Your task to perform on an android device: open app "Reddit" Image 0: 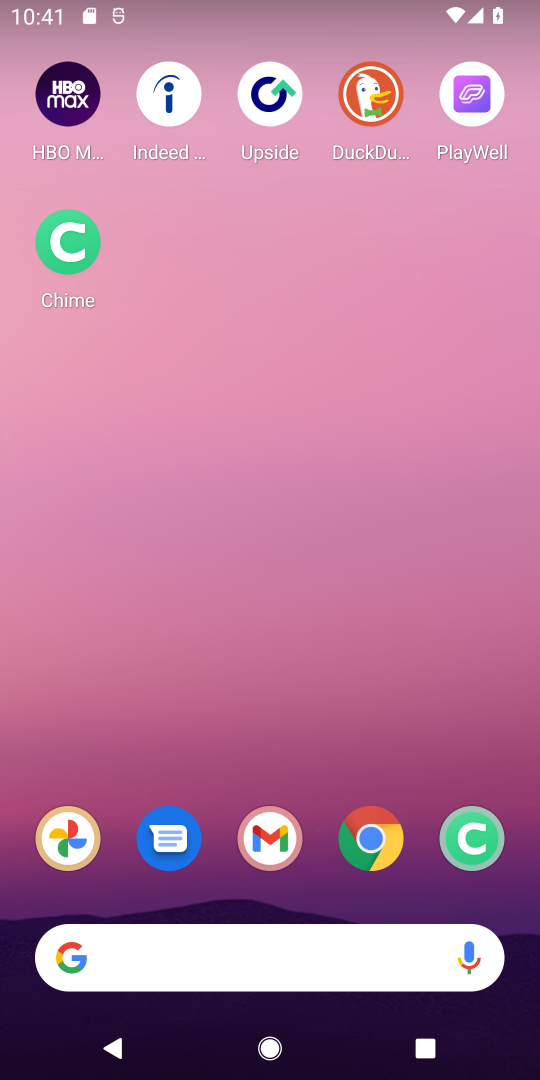
Step 0: press home button
Your task to perform on an android device: open app "Reddit" Image 1: 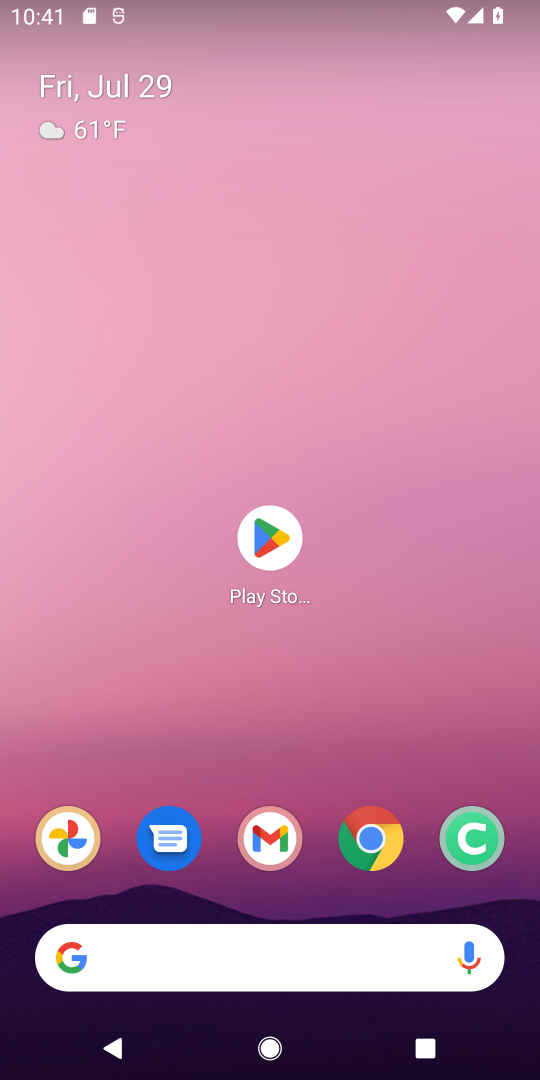
Step 1: click (267, 543)
Your task to perform on an android device: open app "Reddit" Image 2: 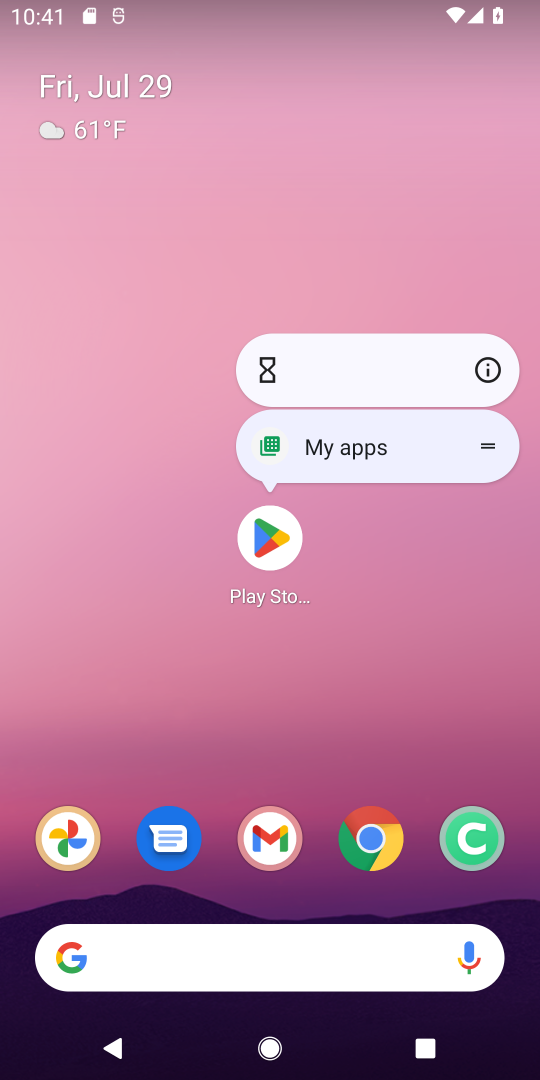
Step 2: click (262, 544)
Your task to perform on an android device: open app "Reddit" Image 3: 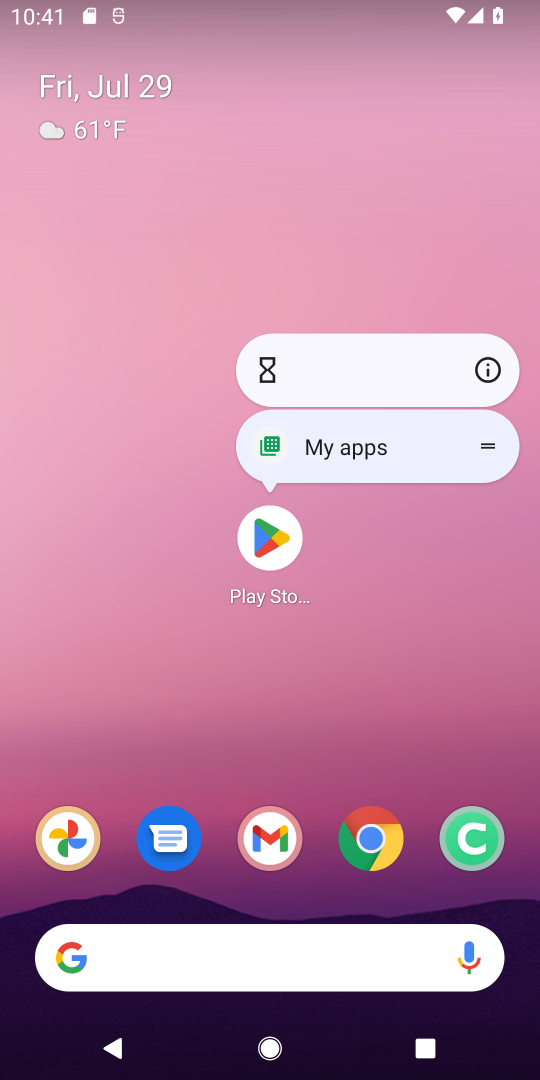
Step 3: click (262, 544)
Your task to perform on an android device: open app "Reddit" Image 4: 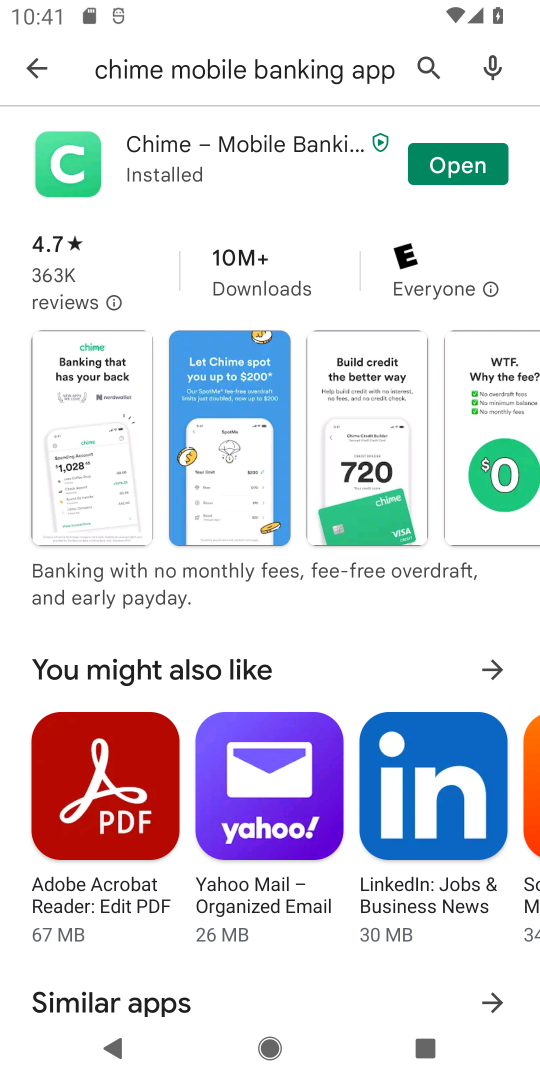
Step 4: click (417, 68)
Your task to perform on an android device: open app "Reddit" Image 5: 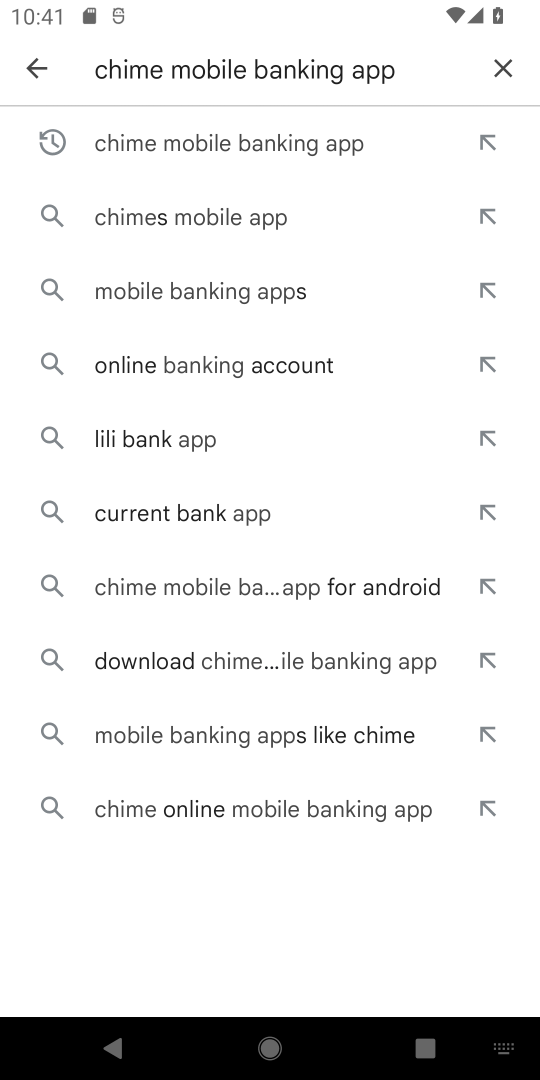
Step 5: click (502, 69)
Your task to perform on an android device: open app "Reddit" Image 6: 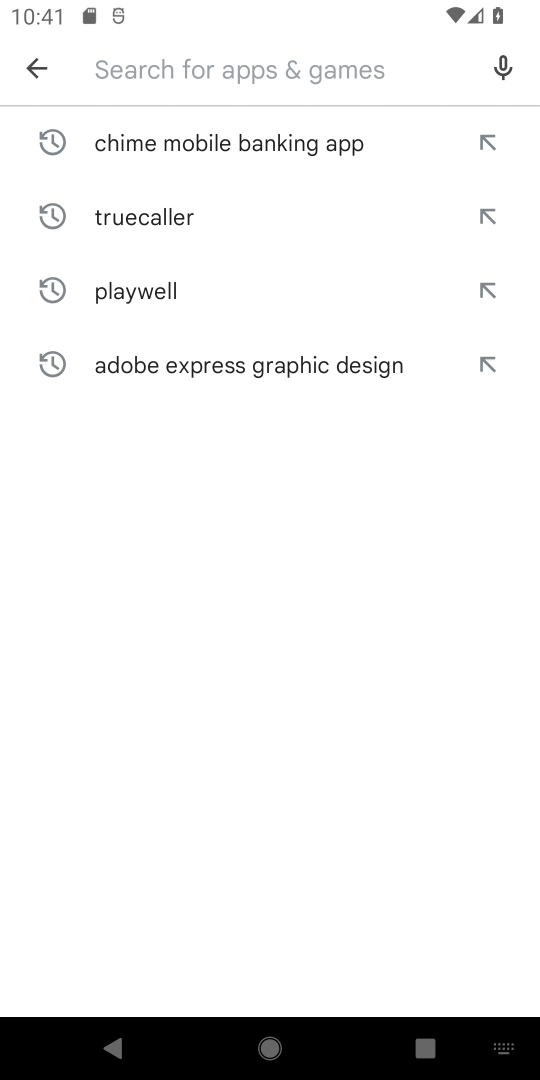
Step 6: type "Reddit"
Your task to perform on an android device: open app "Reddit" Image 7: 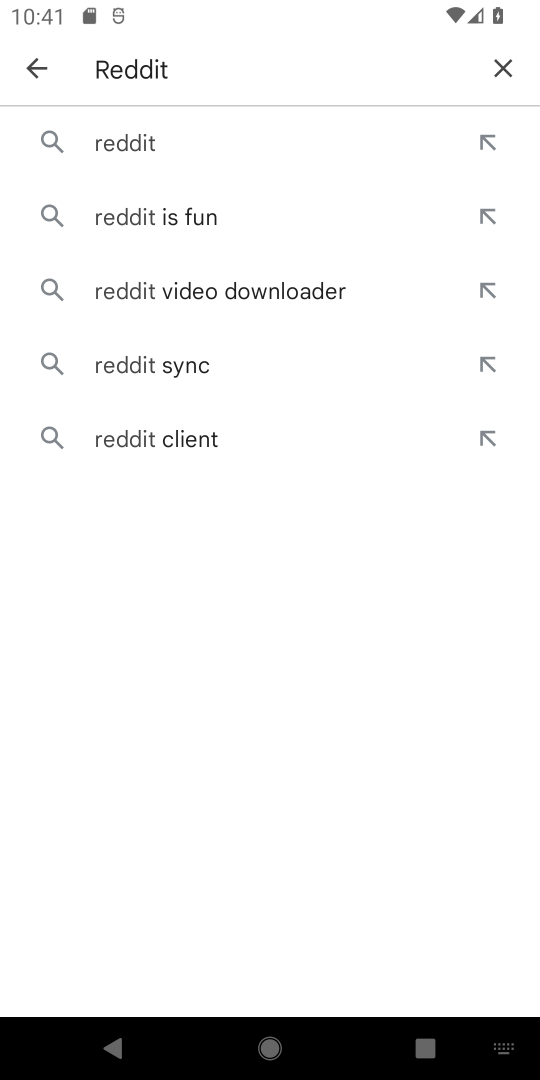
Step 7: click (143, 132)
Your task to perform on an android device: open app "Reddit" Image 8: 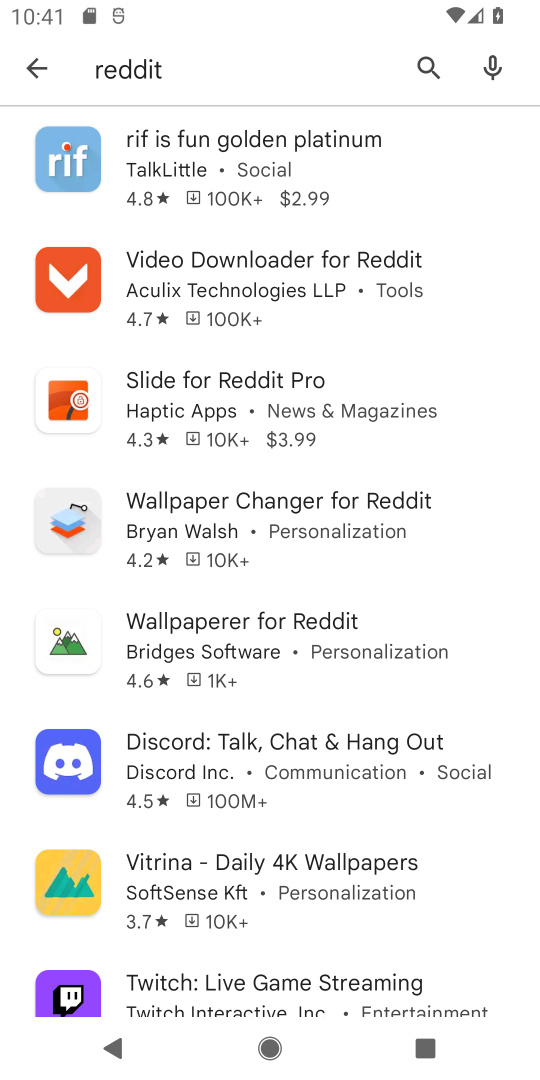
Step 8: task complete